Your task to perform on an android device: change the clock display to show seconds Image 0: 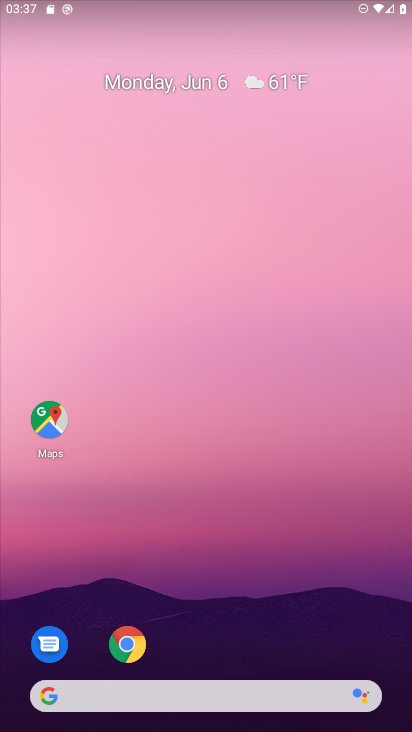
Step 0: drag from (204, 624) to (306, 7)
Your task to perform on an android device: change the clock display to show seconds Image 1: 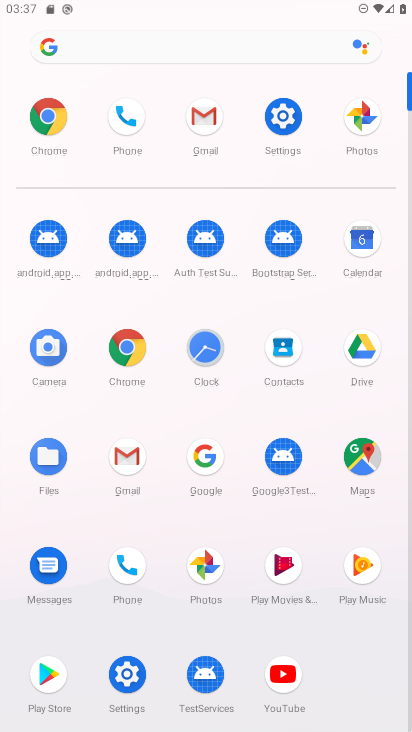
Step 1: click (215, 349)
Your task to perform on an android device: change the clock display to show seconds Image 2: 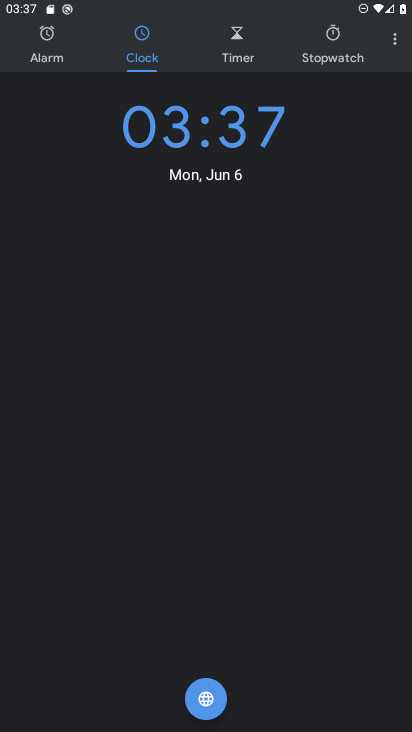
Step 2: click (395, 35)
Your task to perform on an android device: change the clock display to show seconds Image 3: 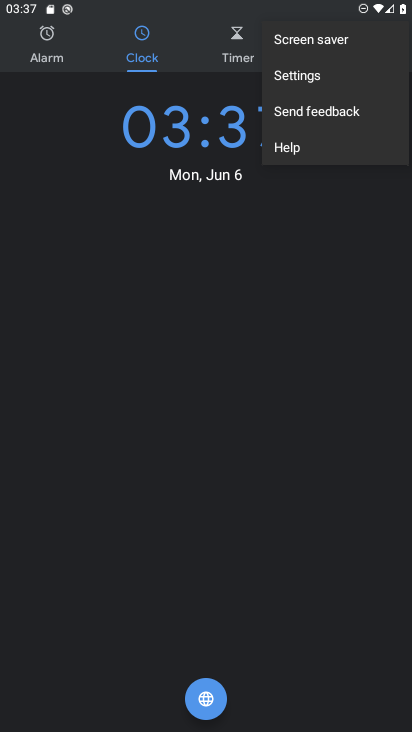
Step 3: click (288, 75)
Your task to perform on an android device: change the clock display to show seconds Image 4: 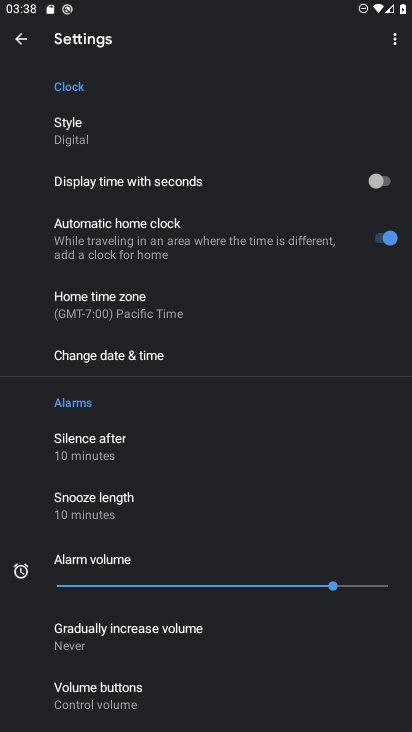
Step 4: click (315, 175)
Your task to perform on an android device: change the clock display to show seconds Image 5: 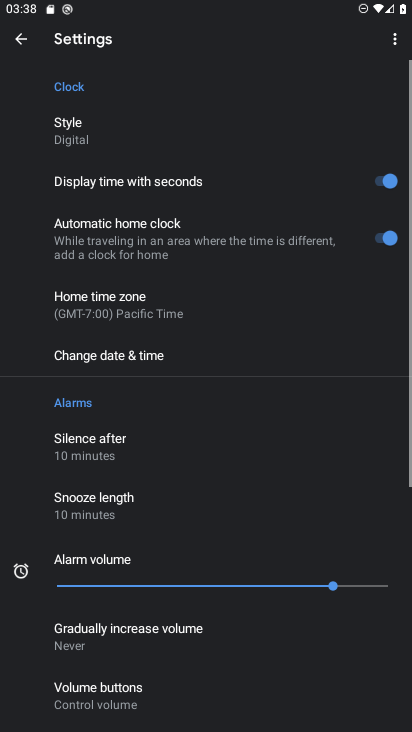
Step 5: click (85, 122)
Your task to perform on an android device: change the clock display to show seconds Image 6: 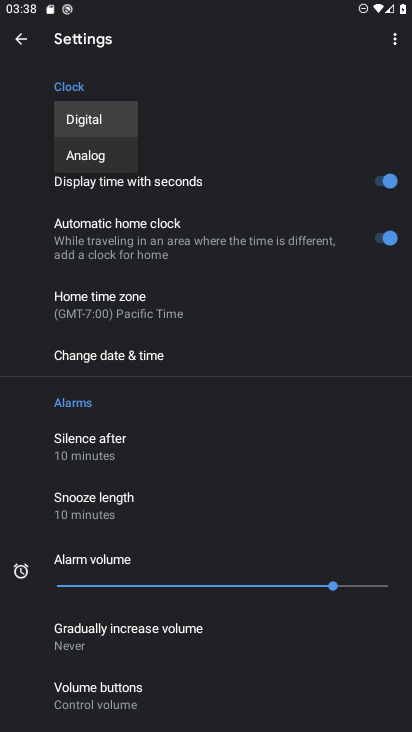
Step 6: click (100, 160)
Your task to perform on an android device: change the clock display to show seconds Image 7: 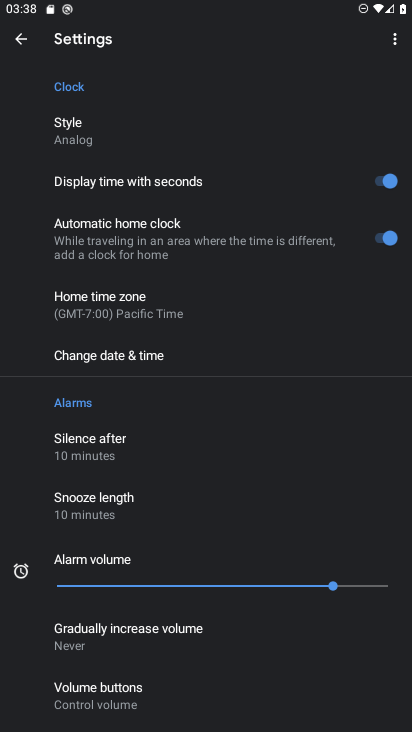
Step 7: task complete